Your task to perform on an android device: turn notification dots on Image 0: 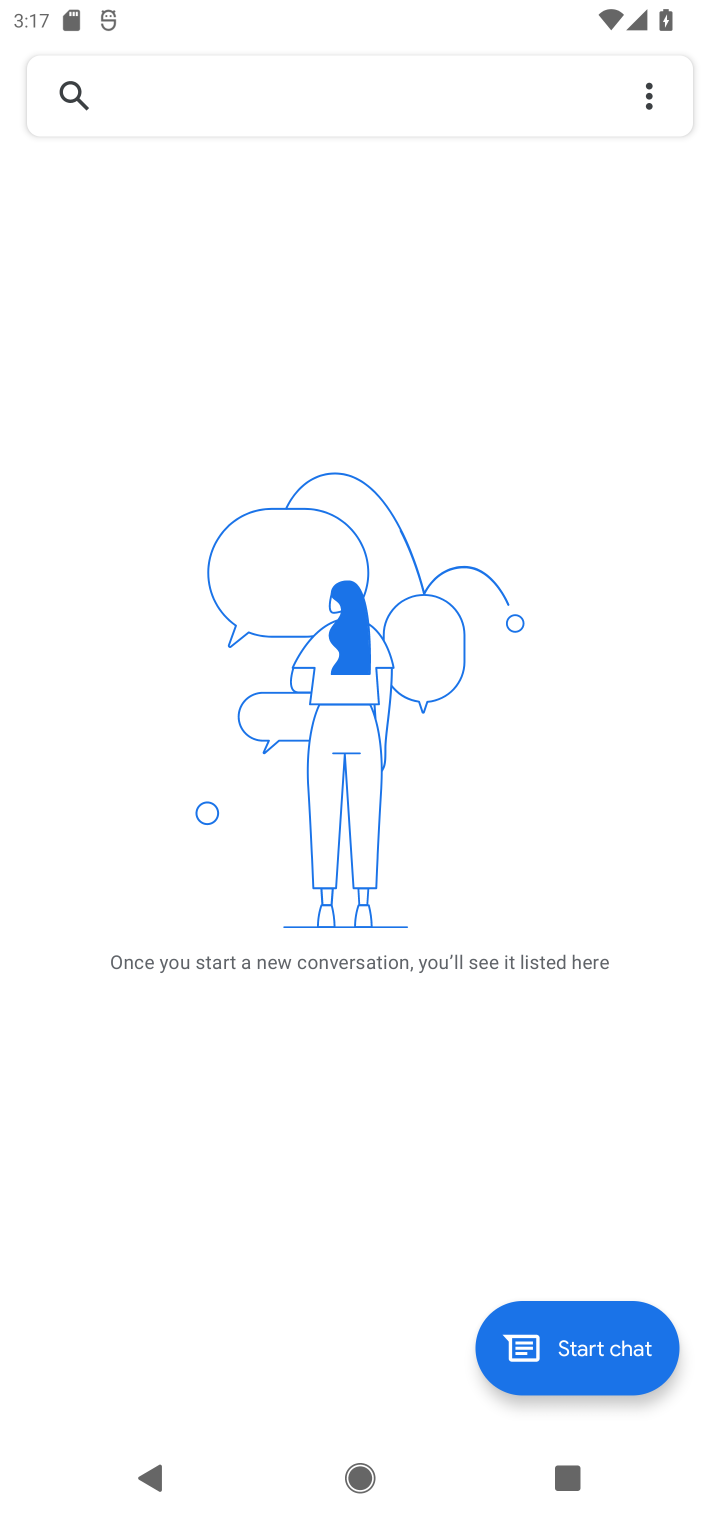
Step 0: press home button
Your task to perform on an android device: turn notification dots on Image 1: 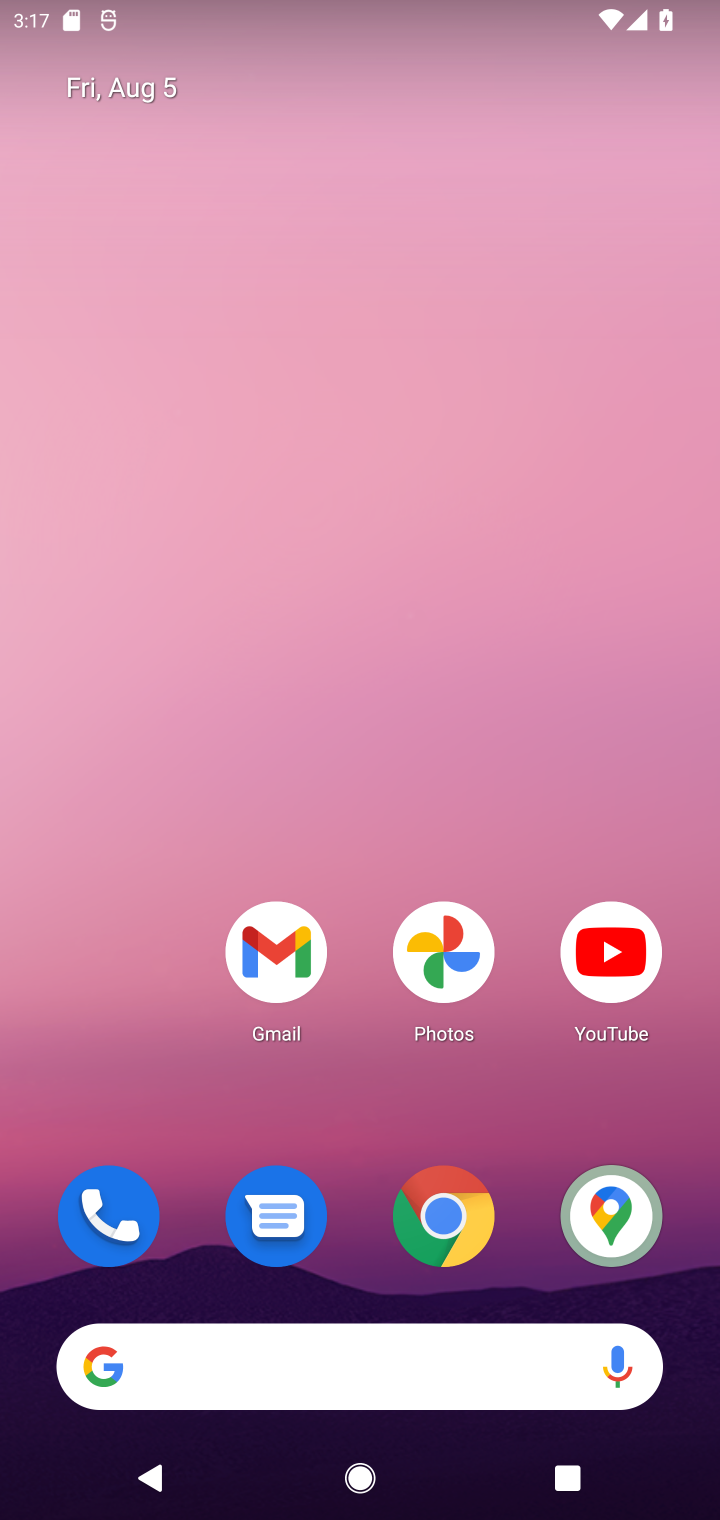
Step 1: drag from (124, 1106) to (312, 81)
Your task to perform on an android device: turn notification dots on Image 2: 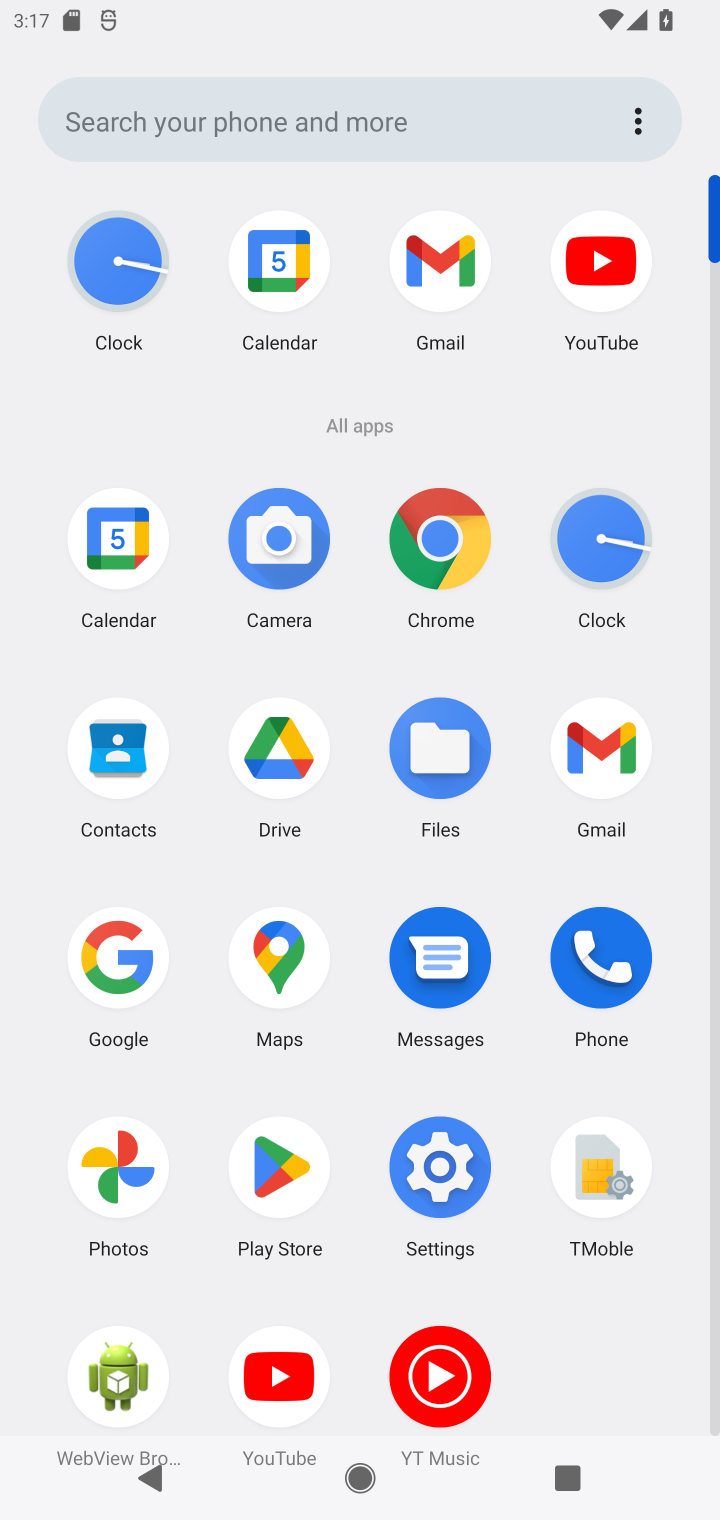
Step 2: click (459, 1177)
Your task to perform on an android device: turn notification dots on Image 3: 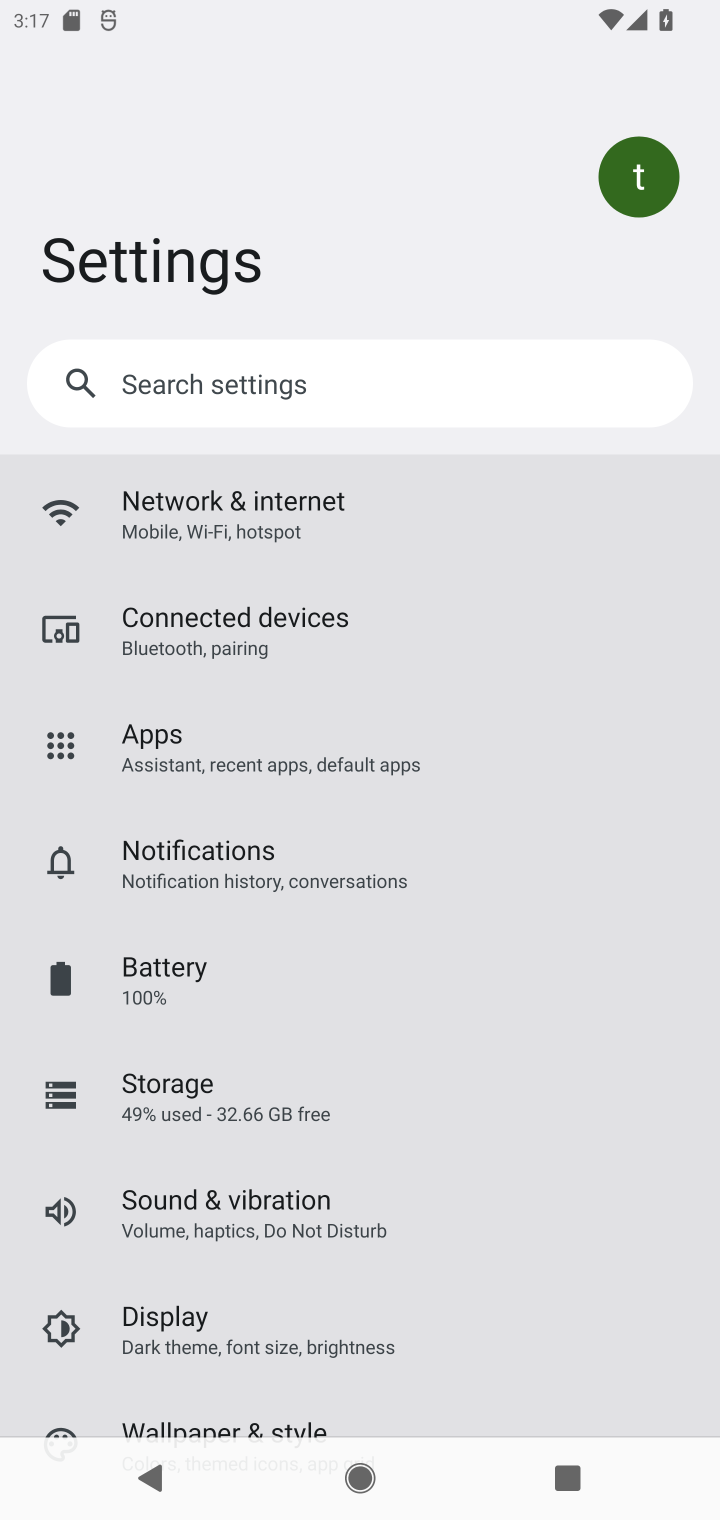
Step 3: click (275, 866)
Your task to perform on an android device: turn notification dots on Image 4: 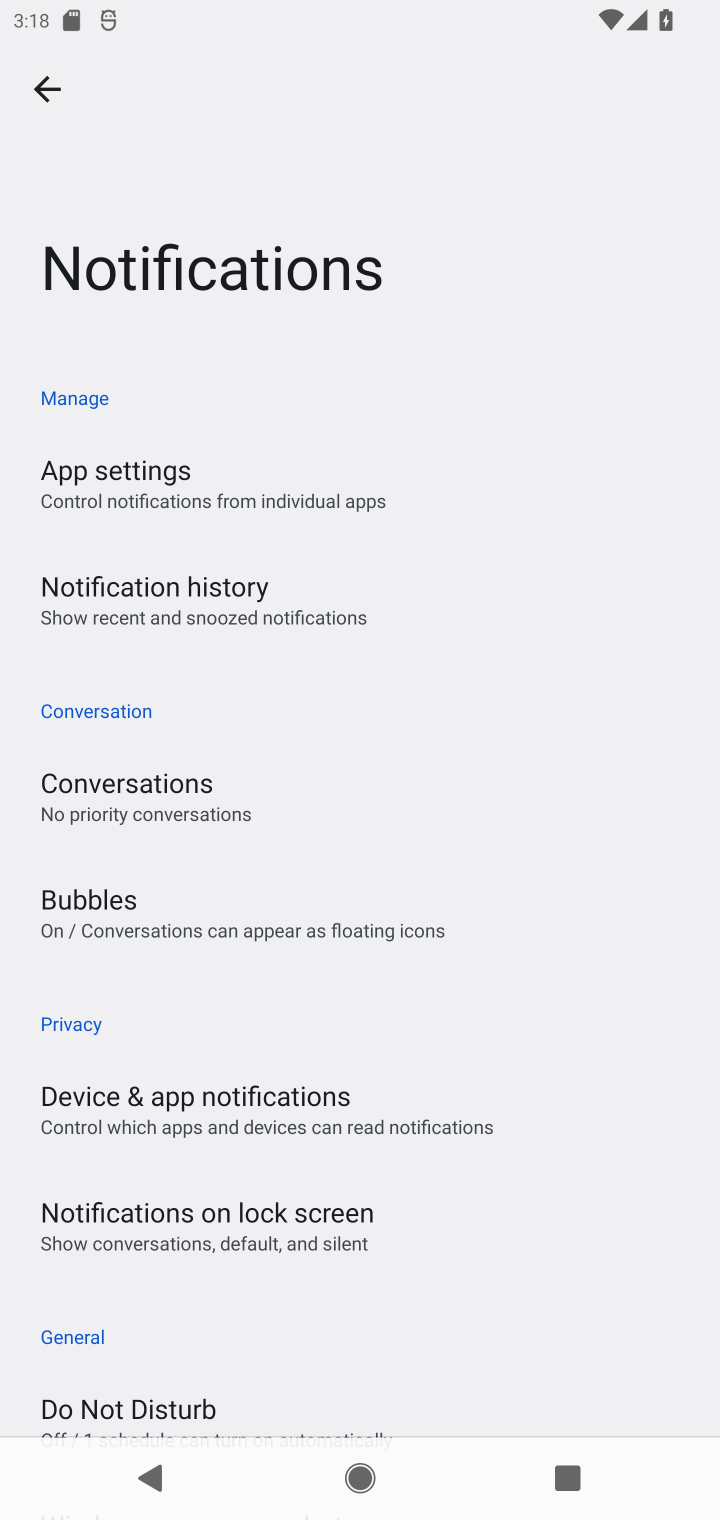
Step 4: task complete